Your task to perform on an android device: Open calendar and show me the first week of next month Image 0: 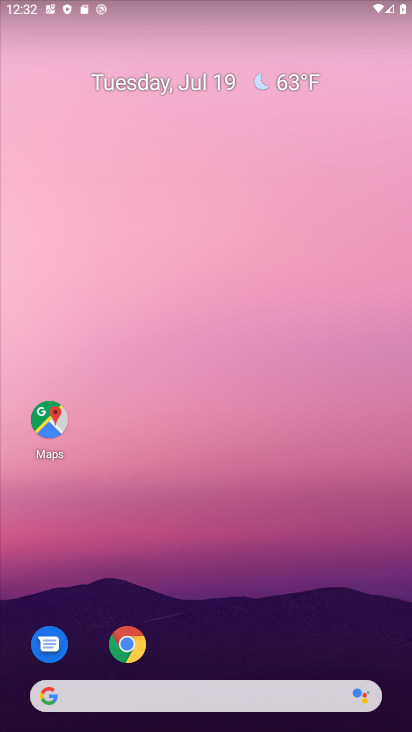
Step 0: drag from (207, 667) to (207, 223)
Your task to perform on an android device: Open calendar and show me the first week of next month Image 1: 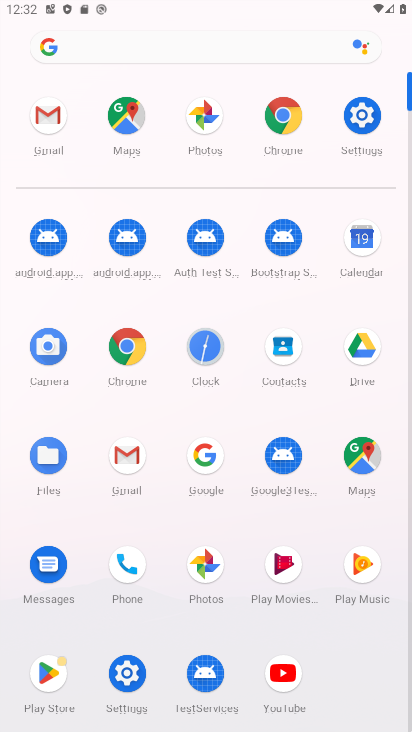
Step 1: click (362, 240)
Your task to perform on an android device: Open calendar and show me the first week of next month Image 2: 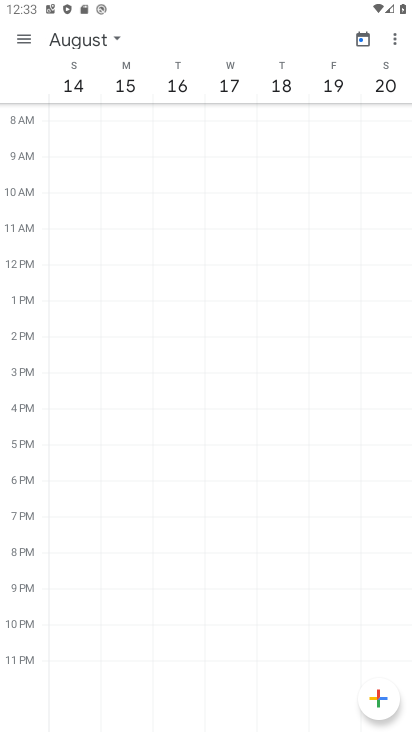
Step 2: click (114, 36)
Your task to perform on an android device: Open calendar and show me the first week of next month Image 3: 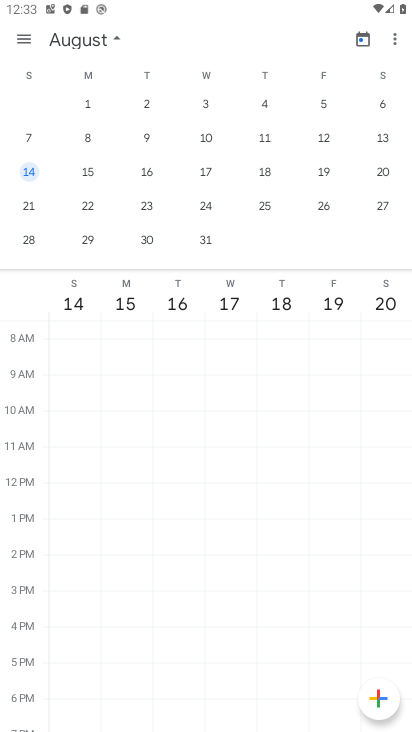
Step 3: click (86, 104)
Your task to perform on an android device: Open calendar and show me the first week of next month Image 4: 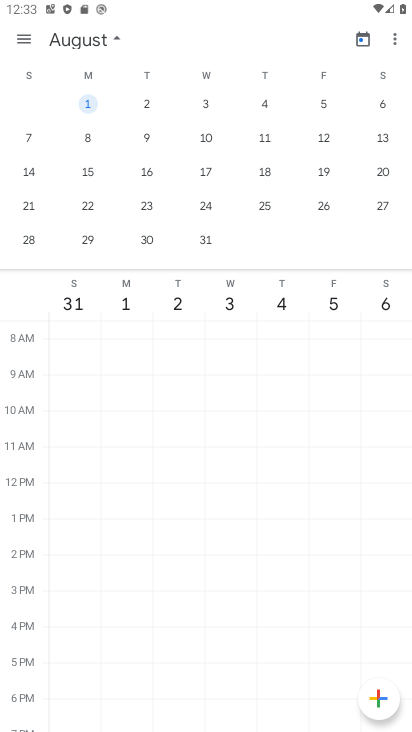
Step 4: click (86, 104)
Your task to perform on an android device: Open calendar and show me the first week of next month Image 5: 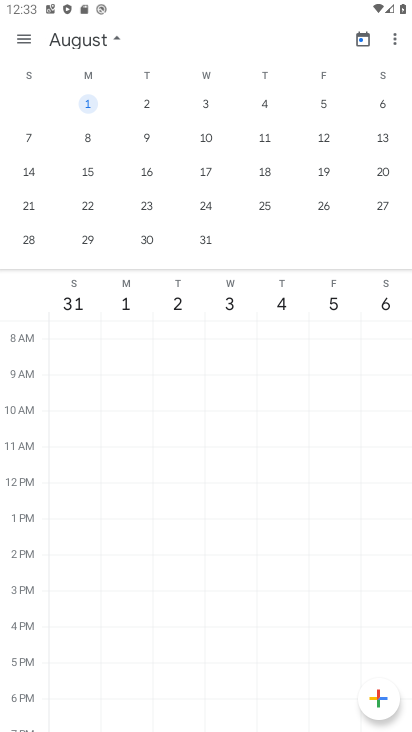
Step 5: click (25, 43)
Your task to perform on an android device: Open calendar and show me the first week of next month Image 6: 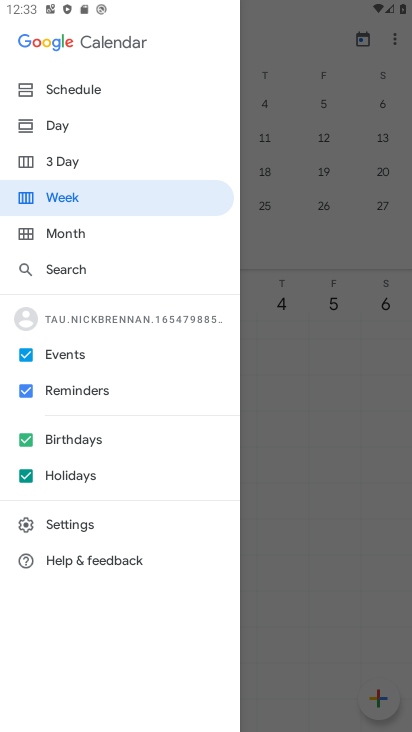
Step 6: click (69, 197)
Your task to perform on an android device: Open calendar and show me the first week of next month Image 7: 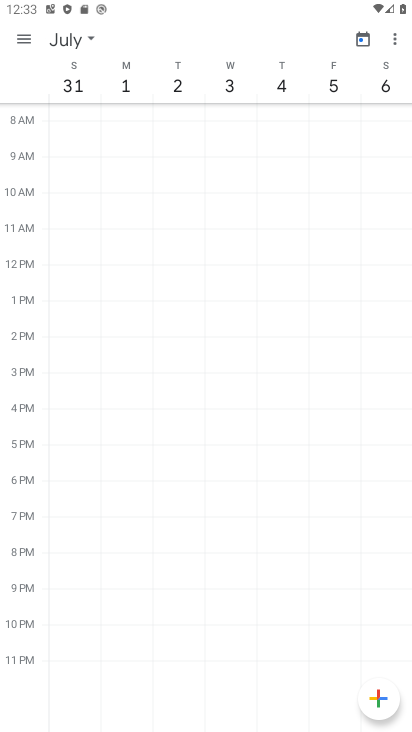
Step 7: task complete